Your task to perform on an android device: toggle javascript in the chrome app Image 0: 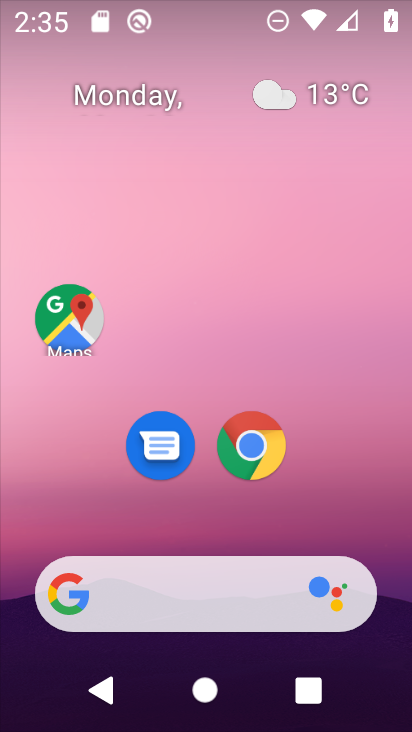
Step 0: drag from (384, 627) to (332, 116)
Your task to perform on an android device: toggle javascript in the chrome app Image 1: 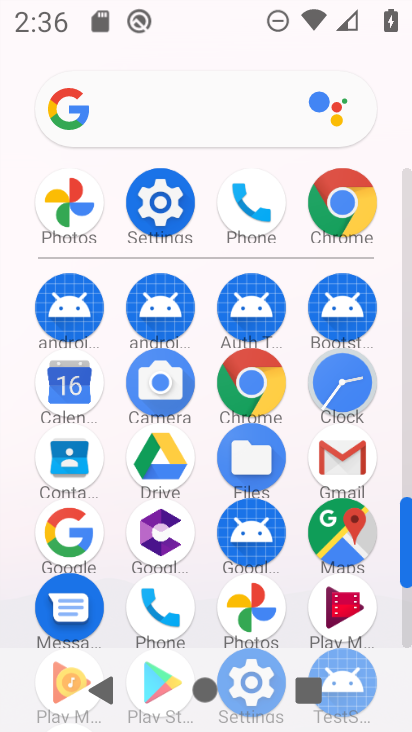
Step 1: click (241, 384)
Your task to perform on an android device: toggle javascript in the chrome app Image 2: 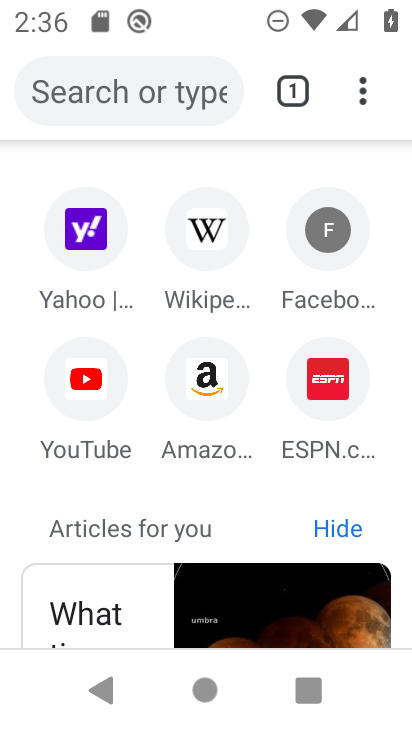
Step 2: click (374, 94)
Your task to perform on an android device: toggle javascript in the chrome app Image 3: 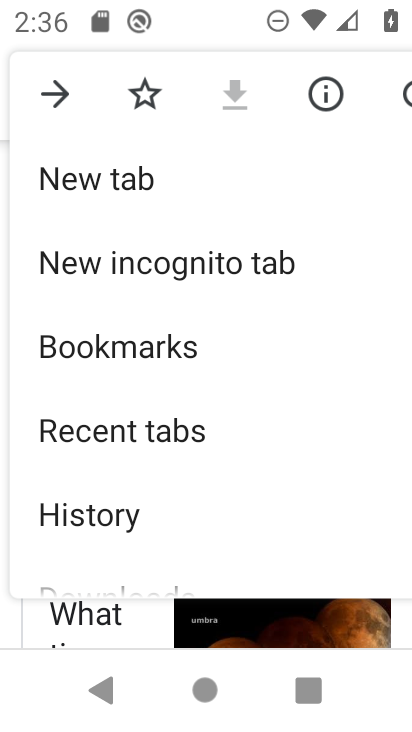
Step 3: drag from (199, 531) to (214, 107)
Your task to perform on an android device: toggle javascript in the chrome app Image 4: 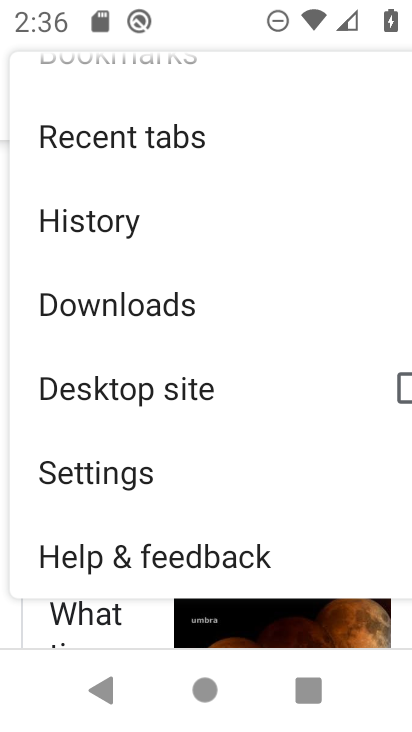
Step 4: click (166, 475)
Your task to perform on an android device: toggle javascript in the chrome app Image 5: 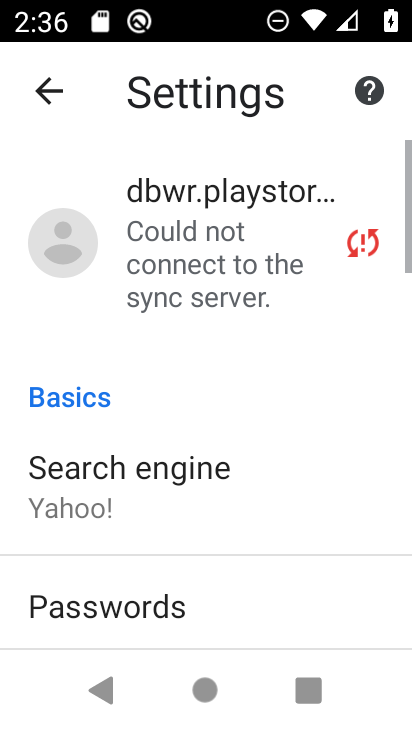
Step 5: drag from (162, 569) to (212, 72)
Your task to perform on an android device: toggle javascript in the chrome app Image 6: 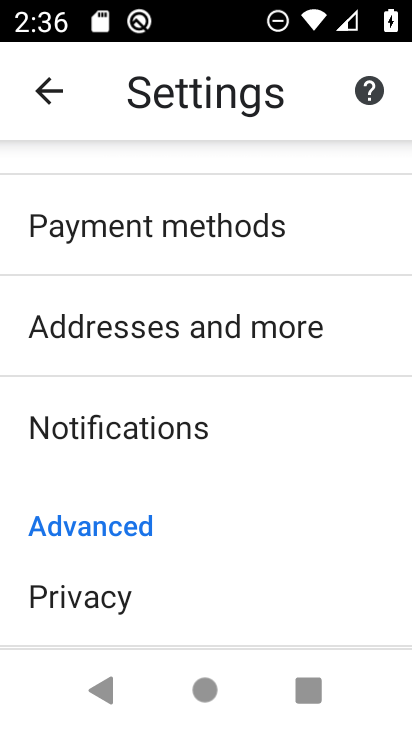
Step 6: drag from (178, 551) to (224, 187)
Your task to perform on an android device: toggle javascript in the chrome app Image 7: 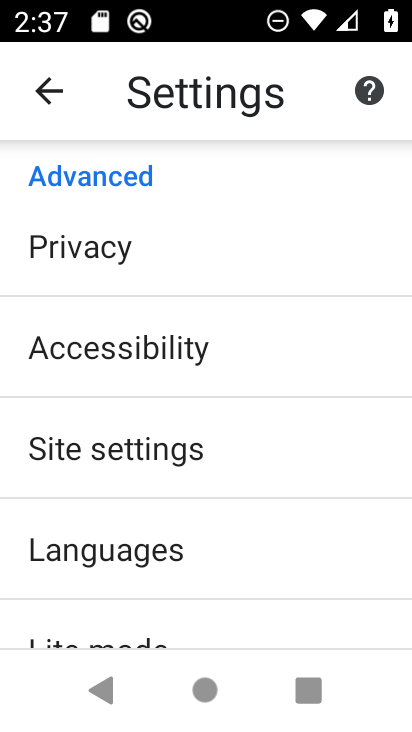
Step 7: click (182, 465)
Your task to perform on an android device: toggle javascript in the chrome app Image 8: 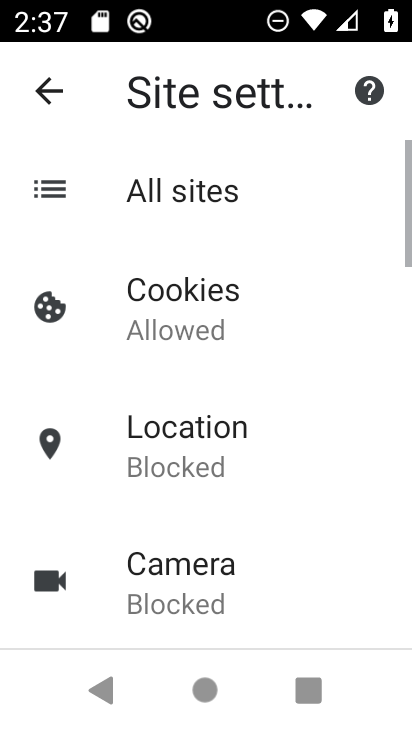
Step 8: drag from (202, 573) to (281, 125)
Your task to perform on an android device: toggle javascript in the chrome app Image 9: 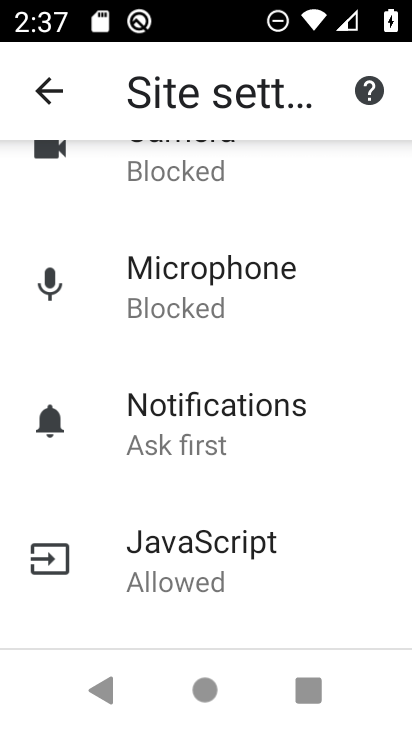
Step 9: click (240, 541)
Your task to perform on an android device: toggle javascript in the chrome app Image 10: 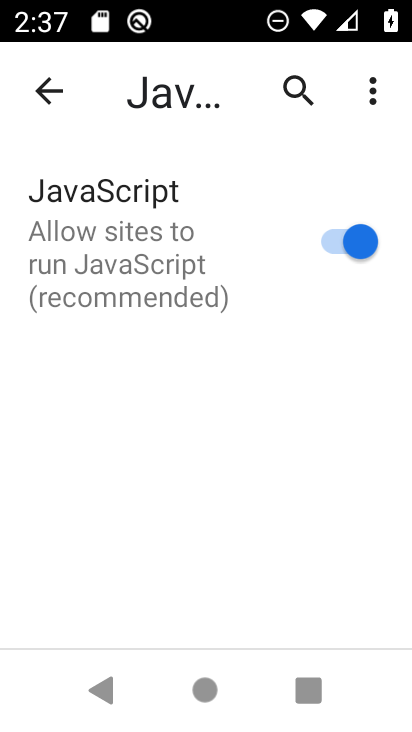
Step 10: click (317, 250)
Your task to perform on an android device: toggle javascript in the chrome app Image 11: 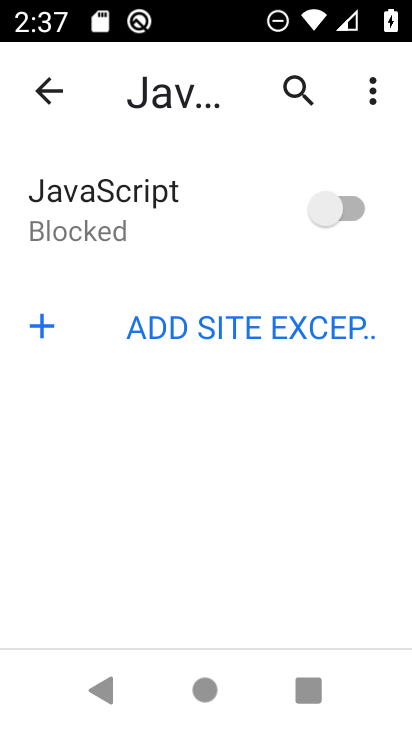
Step 11: task complete